Your task to perform on an android device: Go to Google Image 0: 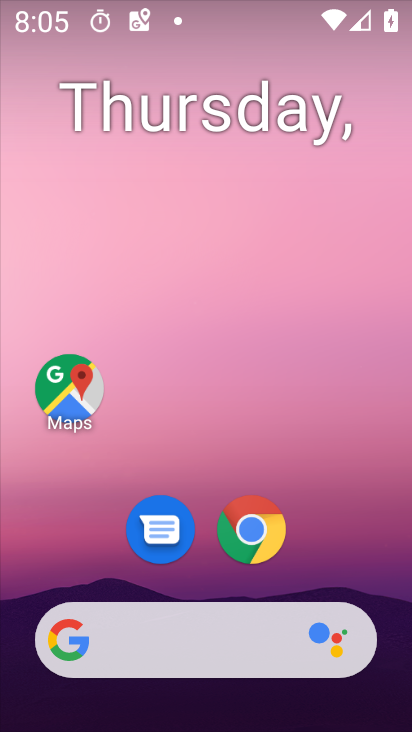
Step 0: click (240, 533)
Your task to perform on an android device: Go to Google Image 1: 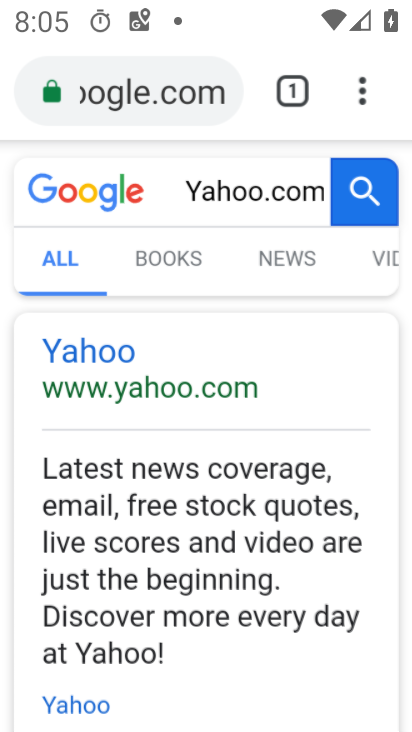
Step 1: press home button
Your task to perform on an android device: Go to Google Image 2: 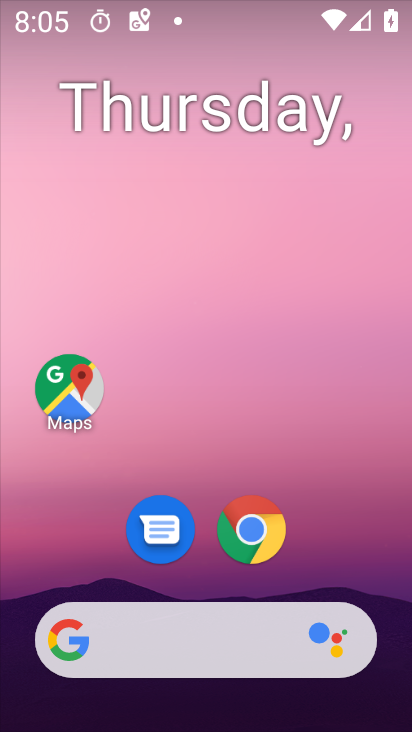
Step 2: drag from (395, 702) to (384, 281)
Your task to perform on an android device: Go to Google Image 3: 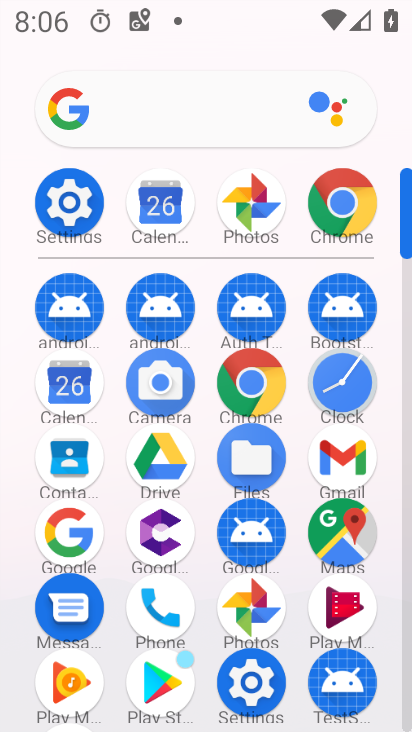
Step 3: click (78, 544)
Your task to perform on an android device: Go to Google Image 4: 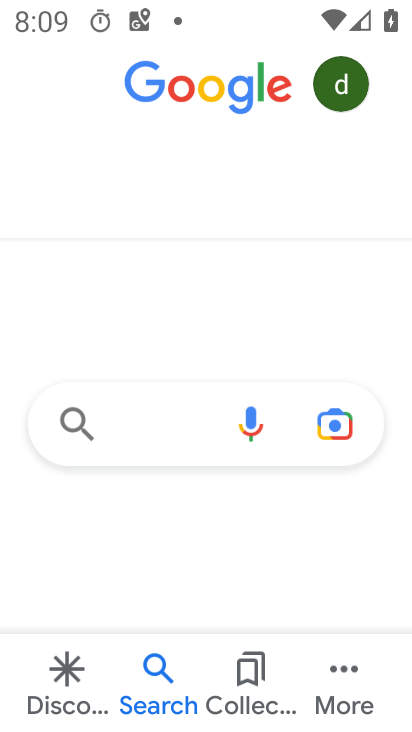
Step 4: task complete